Your task to perform on an android device: Show me popular games on the Play Store Image 0: 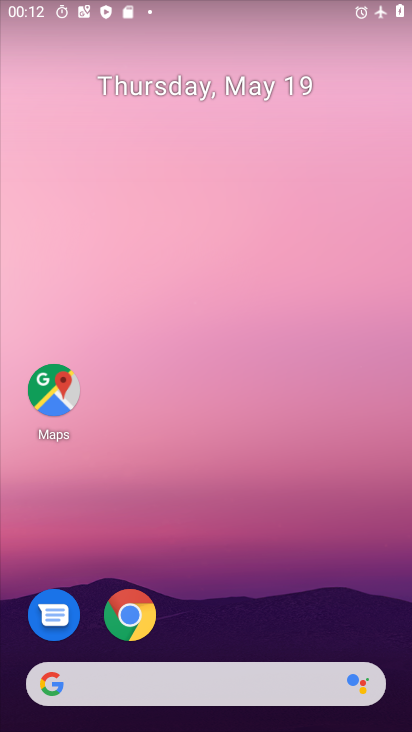
Step 0: press home button
Your task to perform on an android device: Show me popular games on the Play Store Image 1: 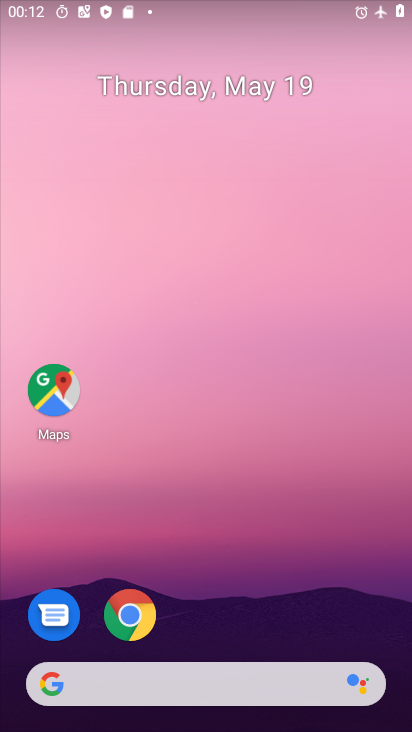
Step 1: drag from (18, 407) to (250, 177)
Your task to perform on an android device: Show me popular games on the Play Store Image 2: 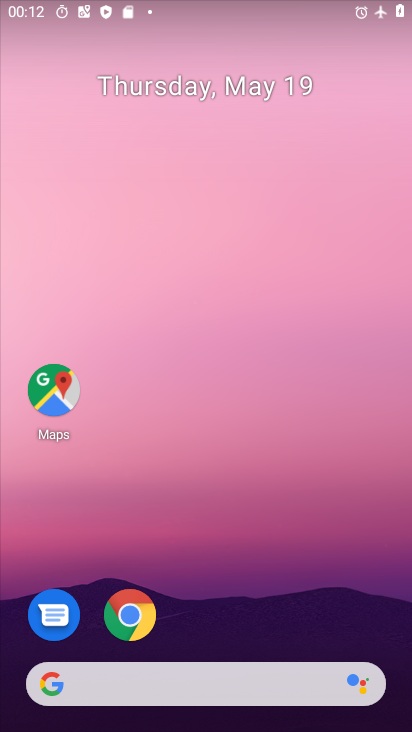
Step 2: drag from (47, 490) to (257, 135)
Your task to perform on an android device: Show me popular games on the Play Store Image 3: 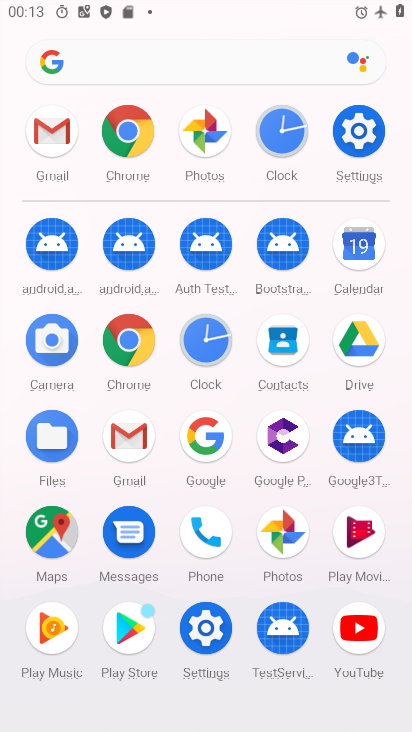
Step 3: click (98, 622)
Your task to perform on an android device: Show me popular games on the Play Store Image 4: 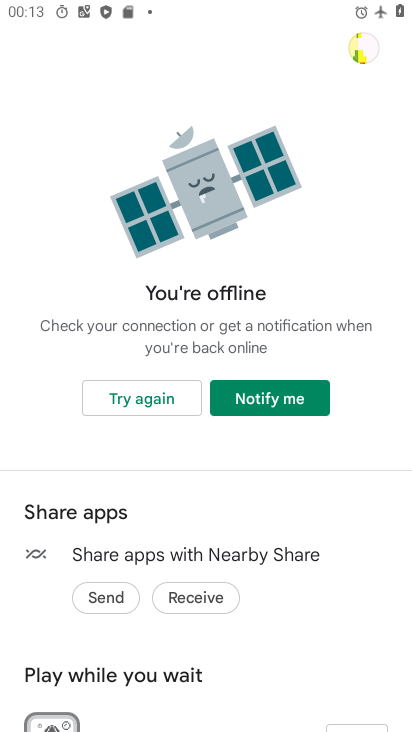
Step 4: task complete